Your task to perform on an android device: turn off improve location accuracy Image 0: 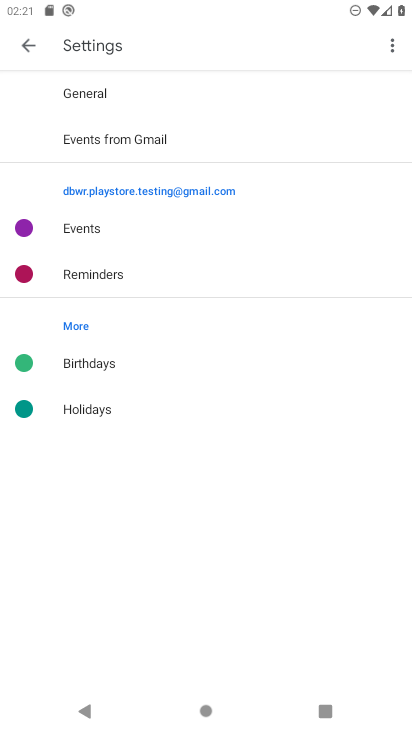
Step 0: press home button
Your task to perform on an android device: turn off improve location accuracy Image 1: 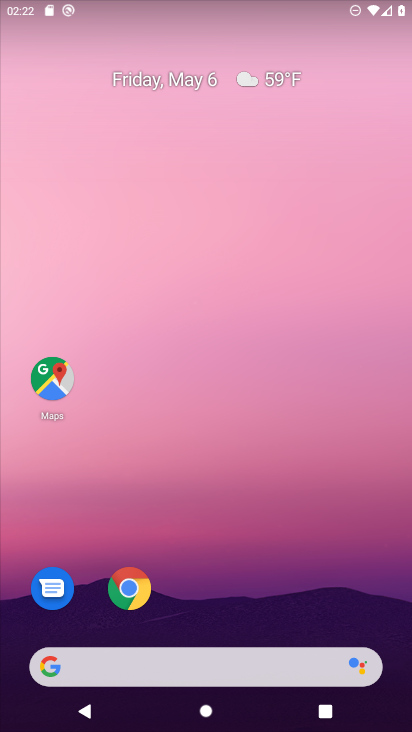
Step 1: drag from (186, 625) to (310, 255)
Your task to perform on an android device: turn off improve location accuracy Image 2: 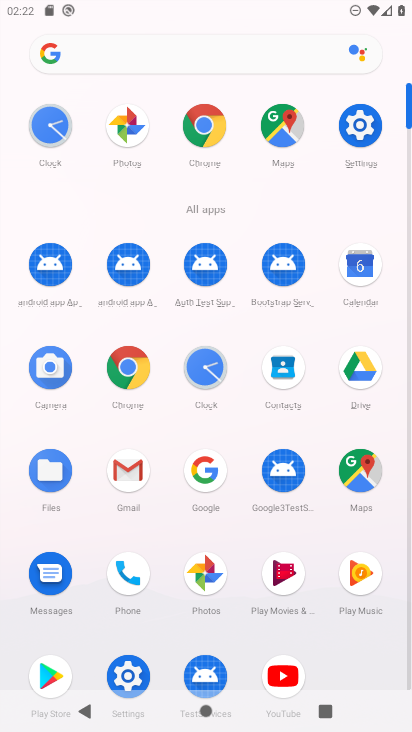
Step 2: click (372, 125)
Your task to perform on an android device: turn off improve location accuracy Image 3: 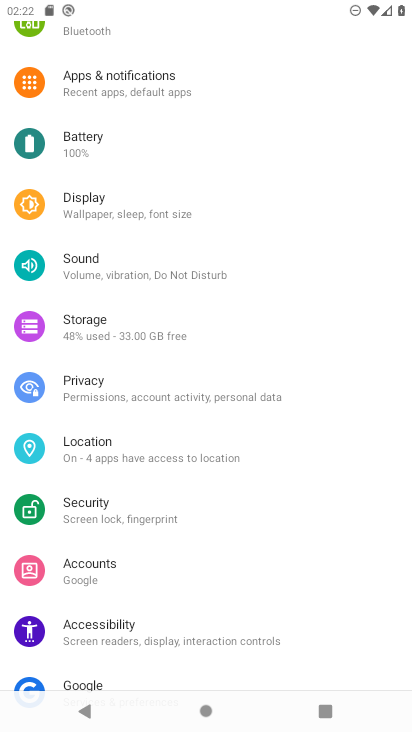
Step 3: click (181, 442)
Your task to perform on an android device: turn off improve location accuracy Image 4: 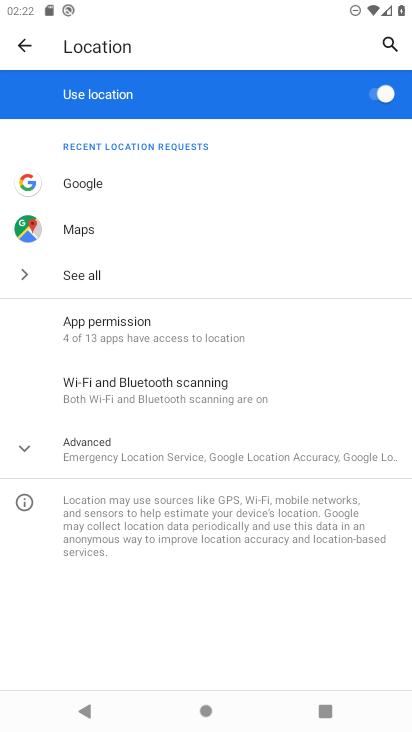
Step 4: click (155, 457)
Your task to perform on an android device: turn off improve location accuracy Image 5: 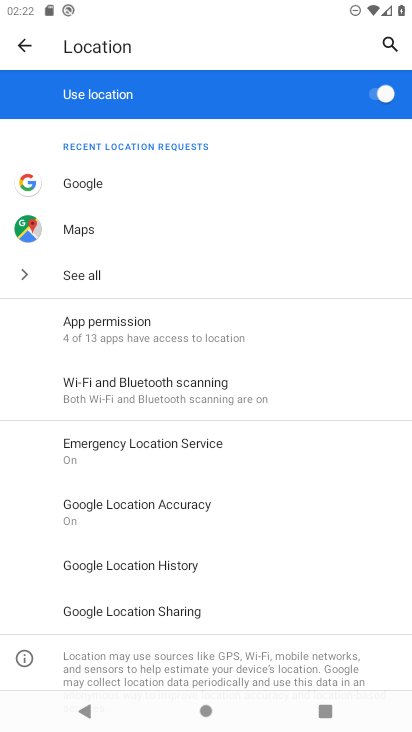
Step 5: click (145, 503)
Your task to perform on an android device: turn off improve location accuracy Image 6: 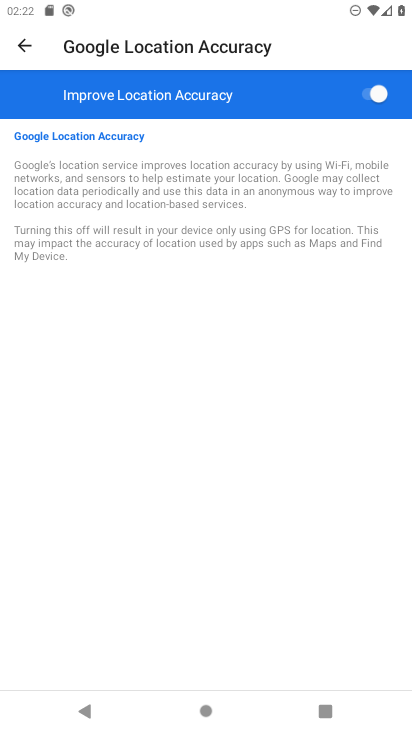
Step 6: click (372, 92)
Your task to perform on an android device: turn off improve location accuracy Image 7: 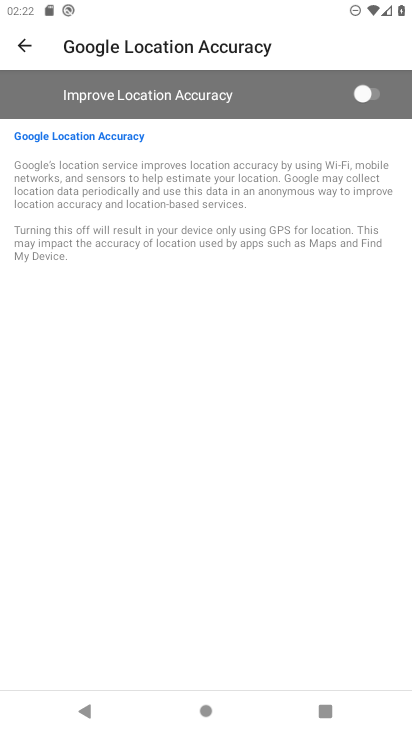
Step 7: task complete